Your task to perform on an android device: Open Android settings Image 0: 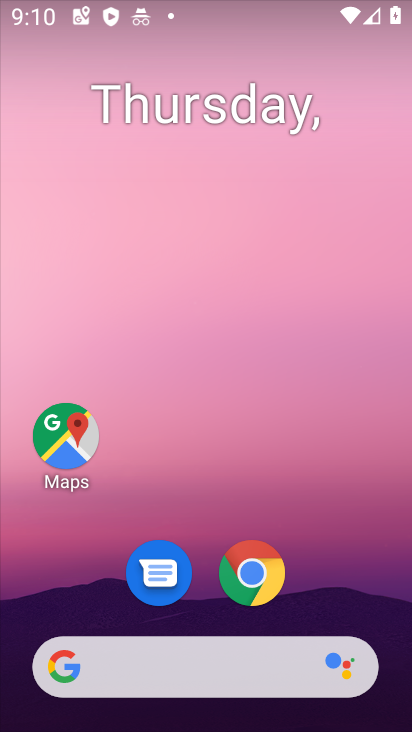
Step 0: drag from (388, 605) to (314, 197)
Your task to perform on an android device: Open Android settings Image 1: 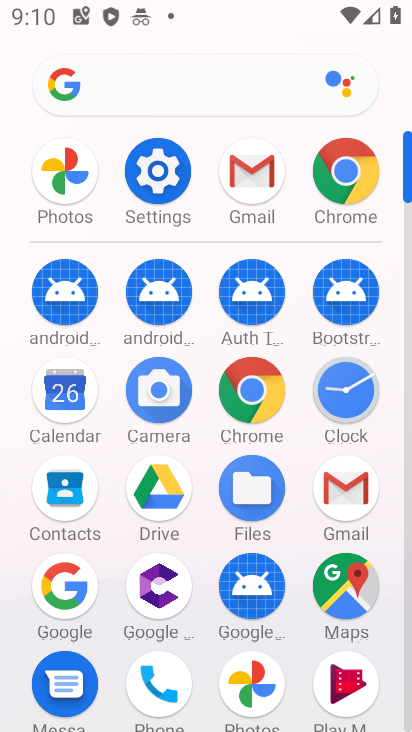
Step 1: click (182, 177)
Your task to perform on an android device: Open Android settings Image 2: 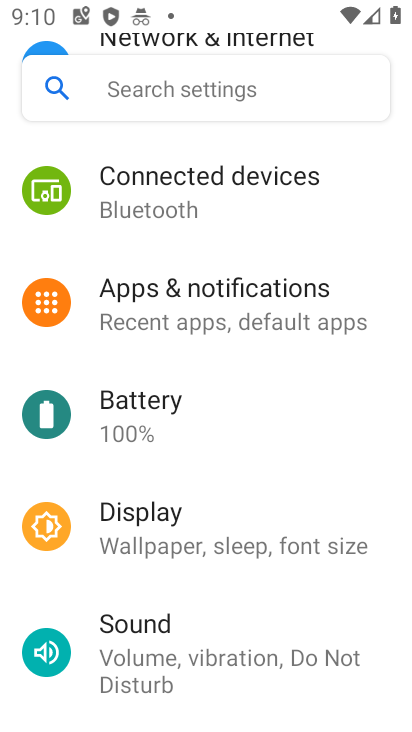
Step 2: drag from (291, 671) to (304, 328)
Your task to perform on an android device: Open Android settings Image 3: 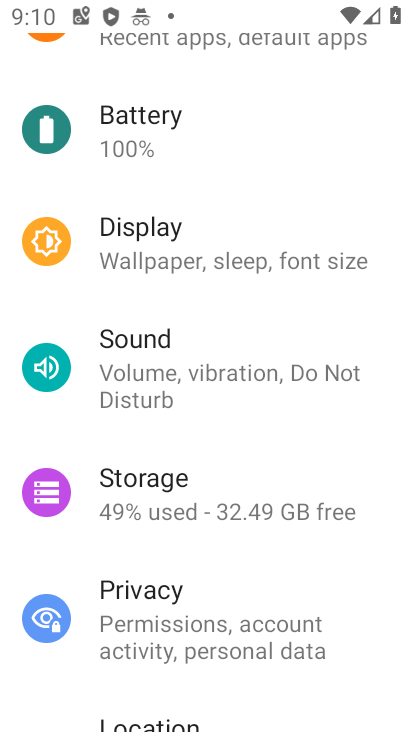
Step 3: drag from (286, 667) to (289, 344)
Your task to perform on an android device: Open Android settings Image 4: 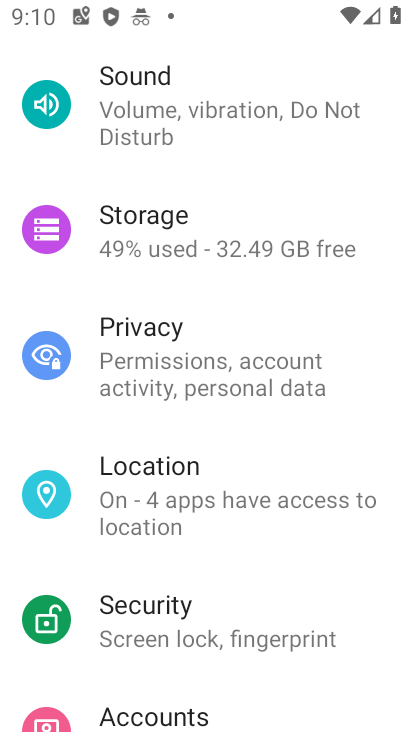
Step 4: drag from (271, 651) to (283, 305)
Your task to perform on an android device: Open Android settings Image 5: 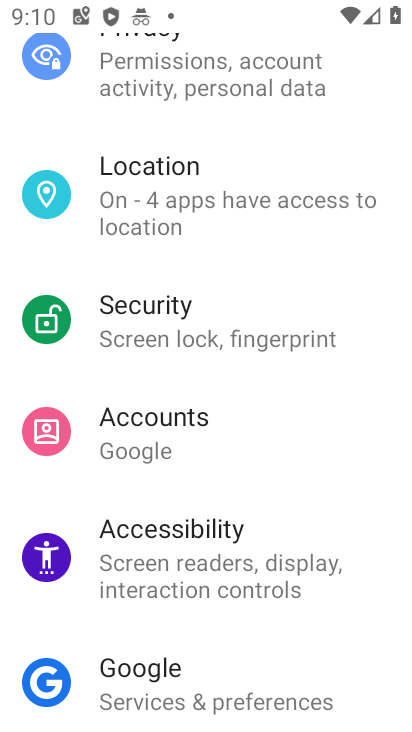
Step 5: drag from (238, 604) to (283, 293)
Your task to perform on an android device: Open Android settings Image 6: 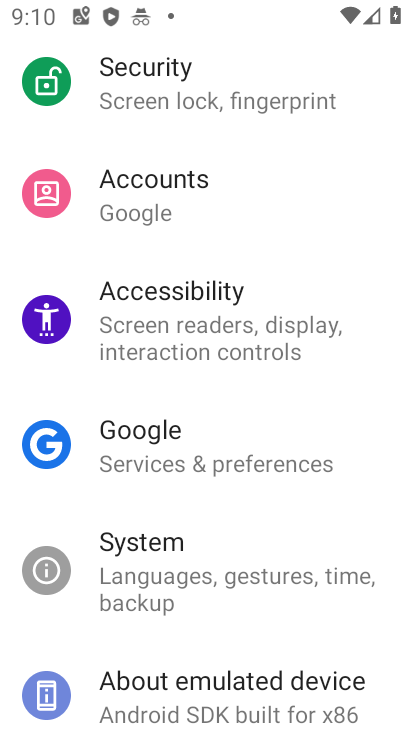
Step 6: drag from (246, 599) to (284, 228)
Your task to perform on an android device: Open Android settings Image 7: 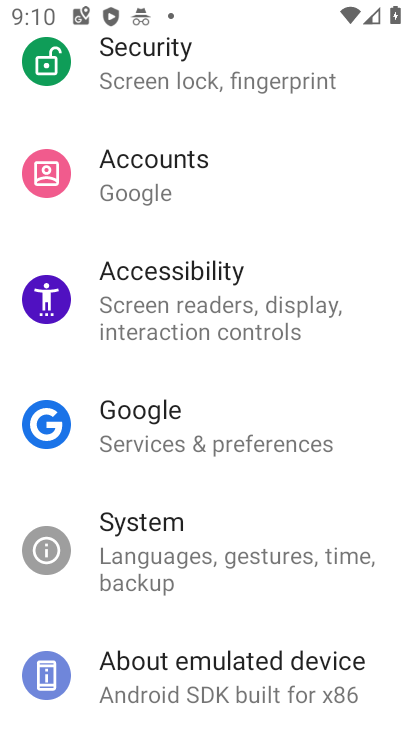
Step 7: click (229, 643)
Your task to perform on an android device: Open Android settings Image 8: 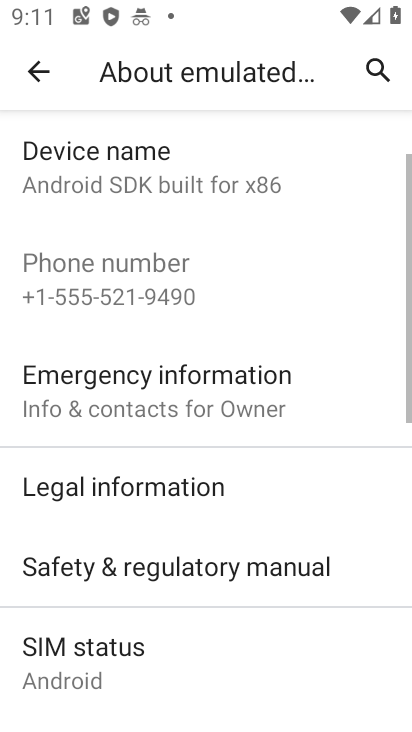
Step 8: drag from (269, 647) to (344, 469)
Your task to perform on an android device: Open Android settings Image 9: 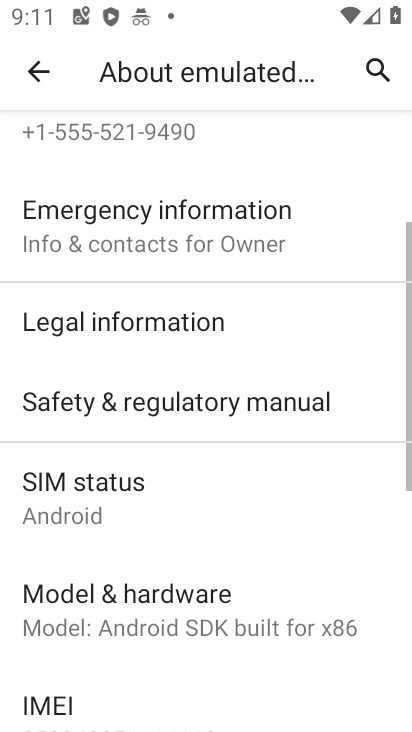
Step 9: drag from (267, 683) to (330, 402)
Your task to perform on an android device: Open Android settings Image 10: 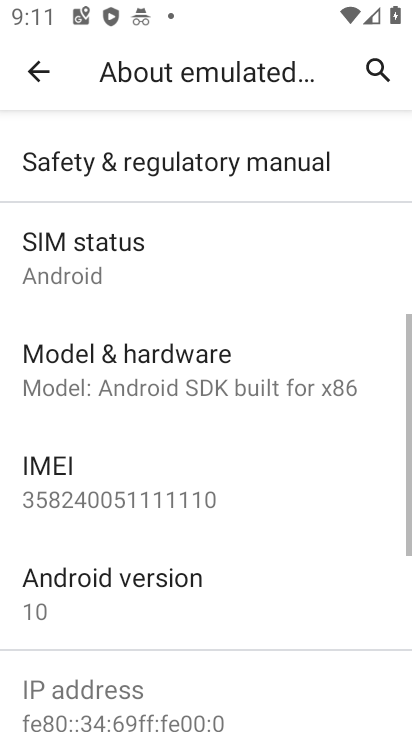
Step 10: click (217, 596)
Your task to perform on an android device: Open Android settings Image 11: 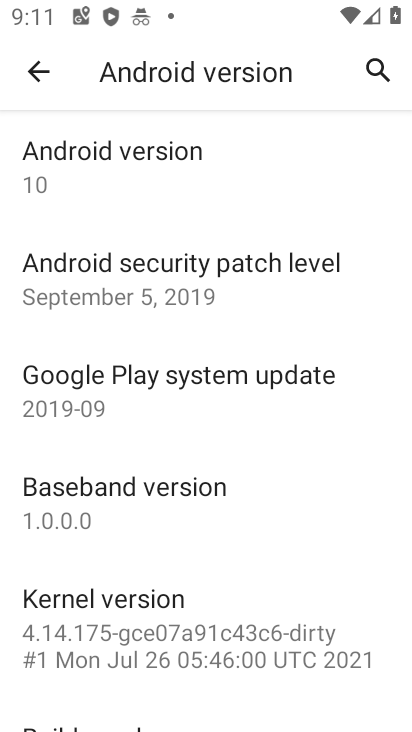
Step 11: task complete